Your task to perform on an android device: Go to display settings Image 0: 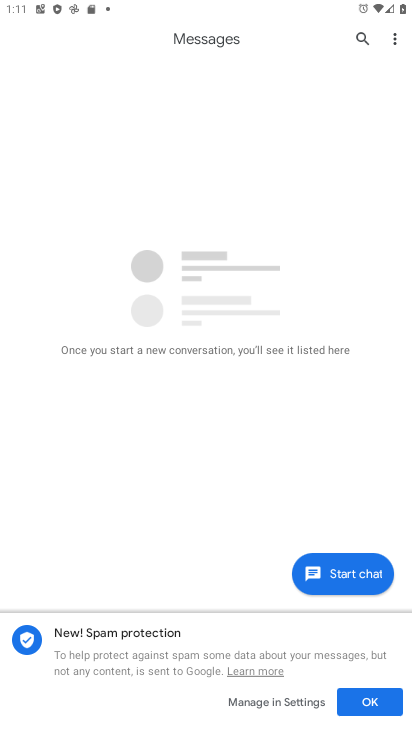
Step 0: press home button
Your task to perform on an android device: Go to display settings Image 1: 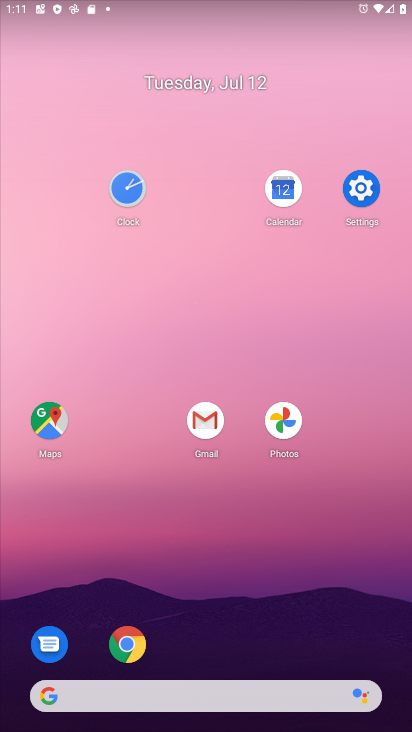
Step 1: click (371, 183)
Your task to perform on an android device: Go to display settings Image 2: 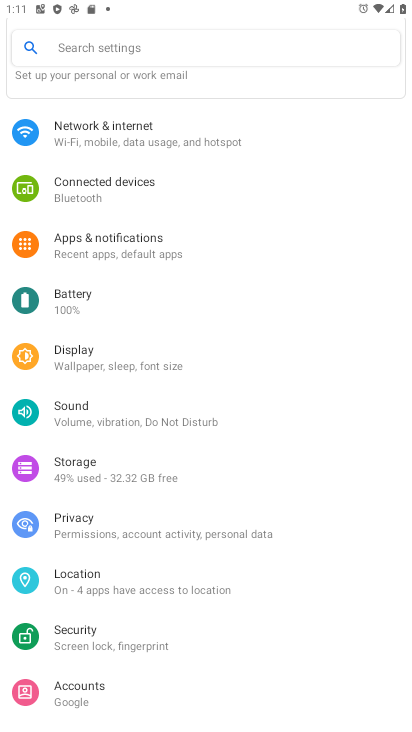
Step 2: click (155, 367)
Your task to perform on an android device: Go to display settings Image 3: 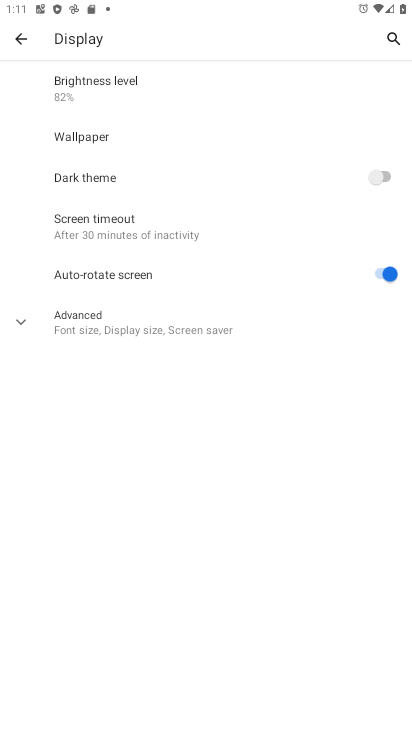
Step 3: task complete